Your task to perform on an android device: change your default location settings in chrome Image 0: 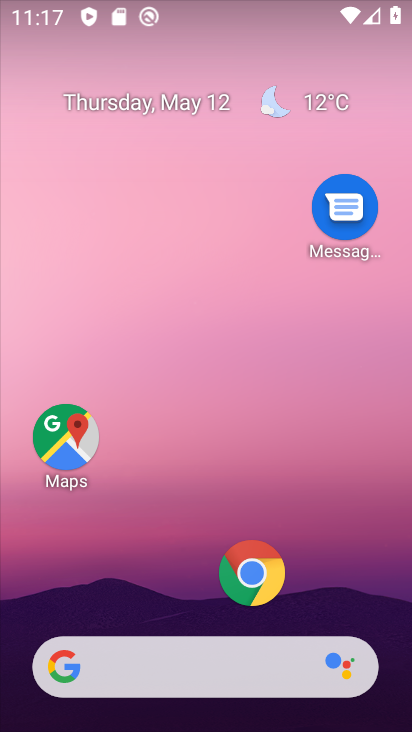
Step 0: drag from (328, 541) to (368, 204)
Your task to perform on an android device: change your default location settings in chrome Image 1: 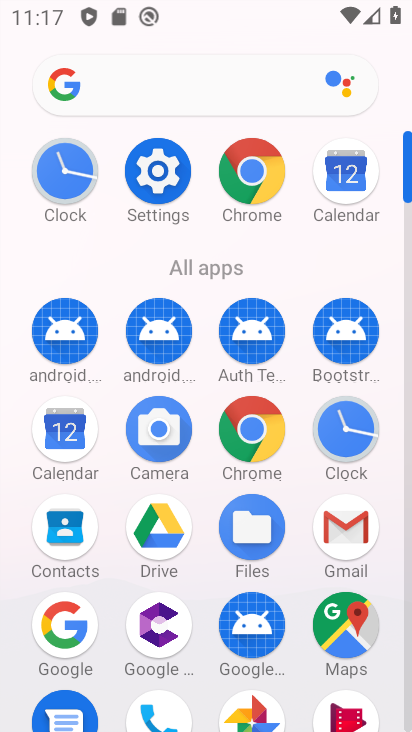
Step 1: click (222, 180)
Your task to perform on an android device: change your default location settings in chrome Image 2: 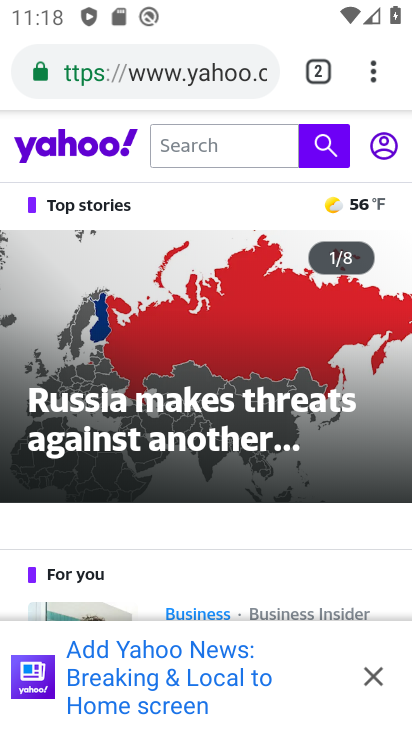
Step 2: drag from (381, 62) to (227, 561)
Your task to perform on an android device: change your default location settings in chrome Image 3: 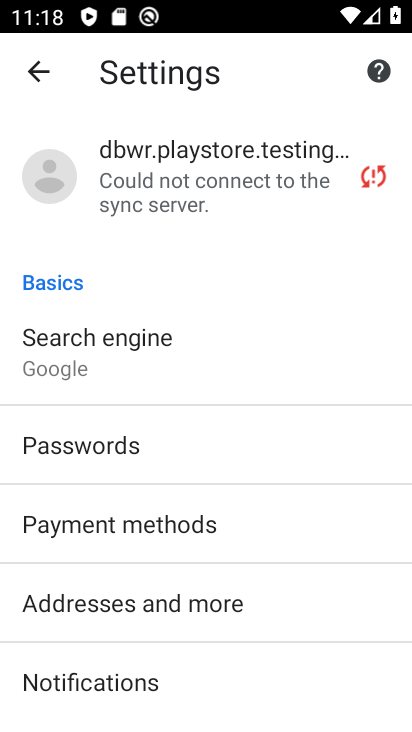
Step 3: drag from (238, 643) to (281, 467)
Your task to perform on an android device: change your default location settings in chrome Image 4: 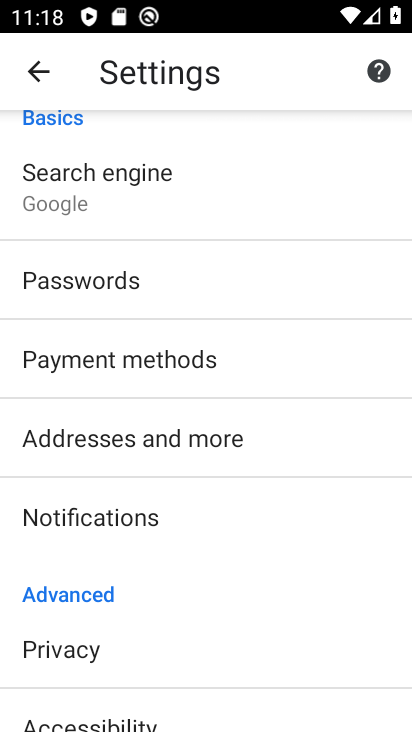
Step 4: drag from (255, 451) to (271, 80)
Your task to perform on an android device: change your default location settings in chrome Image 5: 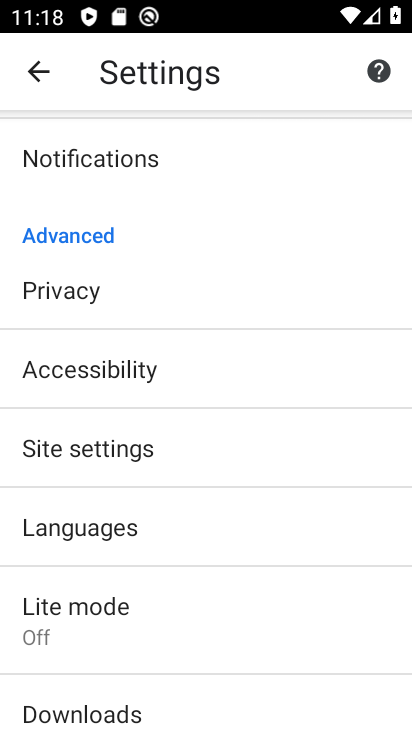
Step 5: click (152, 438)
Your task to perform on an android device: change your default location settings in chrome Image 6: 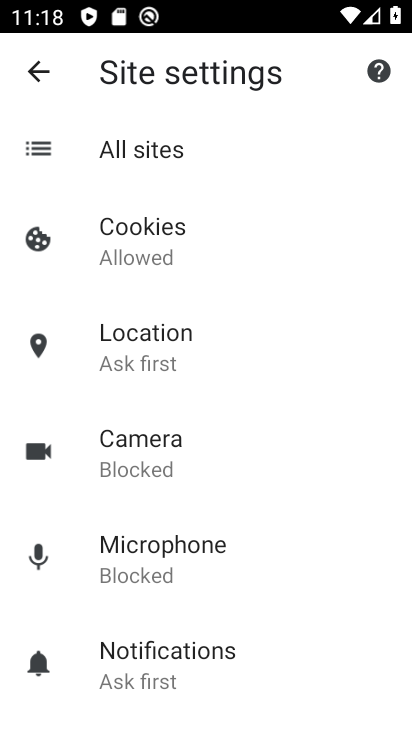
Step 6: click (140, 359)
Your task to perform on an android device: change your default location settings in chrome Image 7: 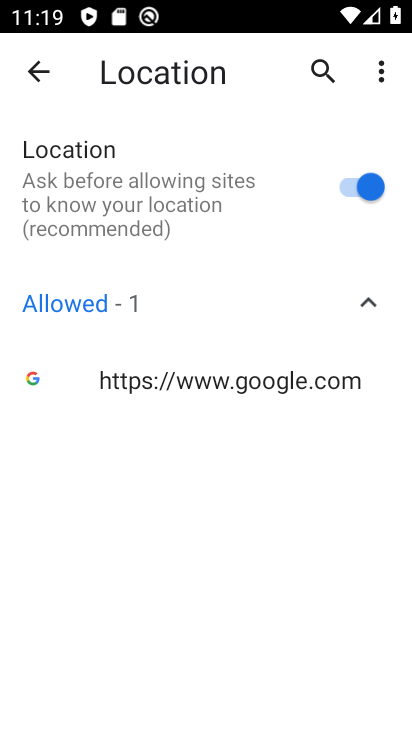
Step 7: task complete